Your task to perform on an android device: Go to battery settings Image 0: 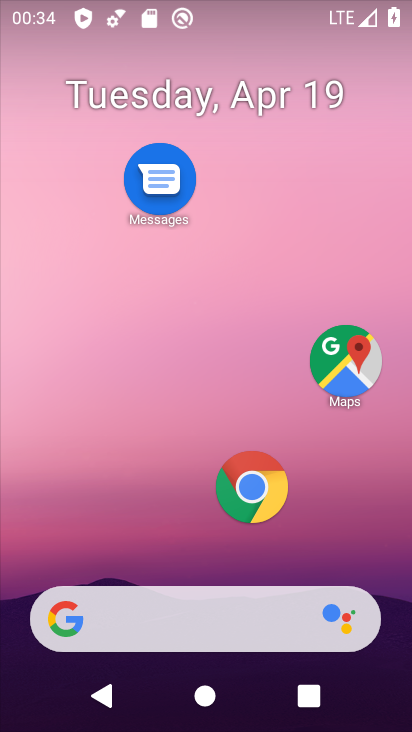
Step 0: drag from (160, 567) to (284, 0)
Your task to perform on an android device: Go to battery settings Image 1: 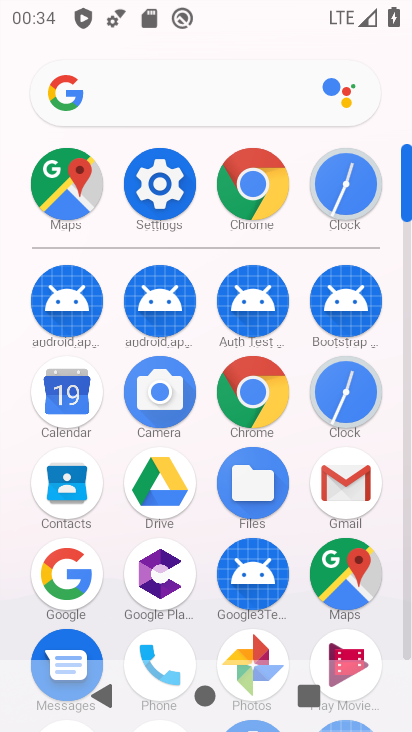
Step 1: click (161, 188)
Your task to perform on an android device: Go to battery settings Image 2: 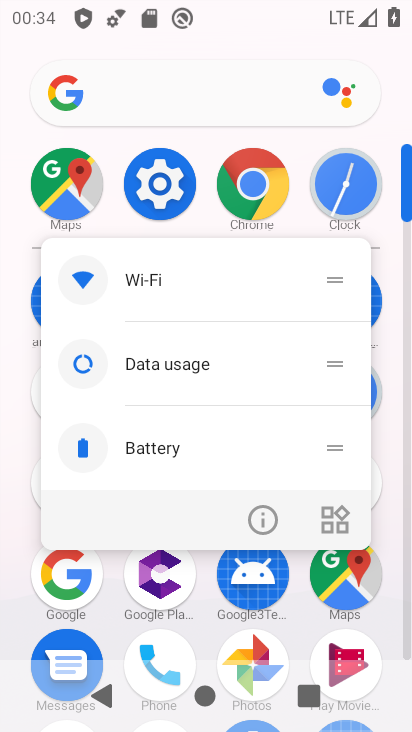
Step 2: click (157, 193)
Your task to perform on an android device: Go to battery settings Image 3: 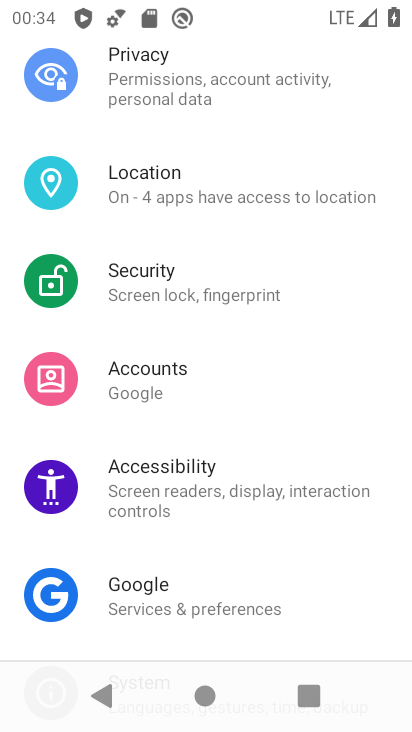
Step 3: drag from (239, 126) to (252, 579)
Your task to perform on an android device: Go to battery settings Image 4: 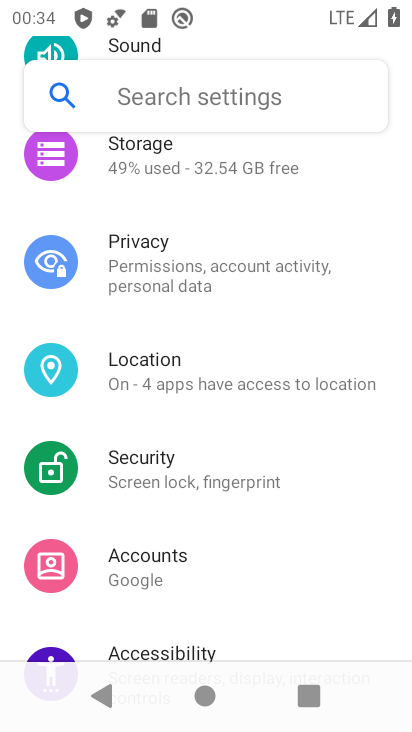
Step 4: drag from (202, 208) to (197, 707)
Your task to perform on an android device: Go to battery settings Image 5: 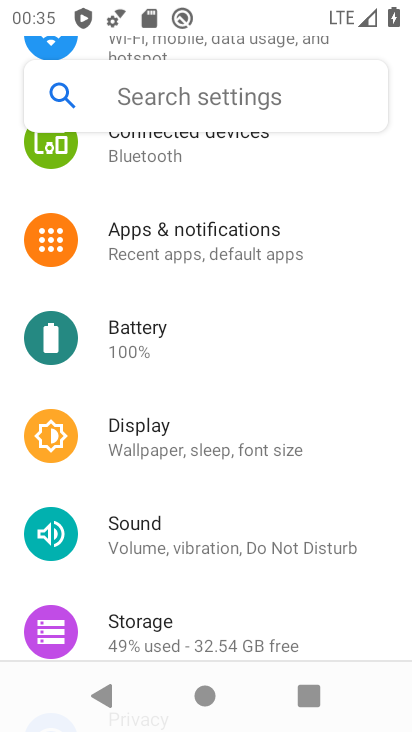
Step 5: click (153, 323)
Your task to perform on an android device: Go to battery settings Image 6: 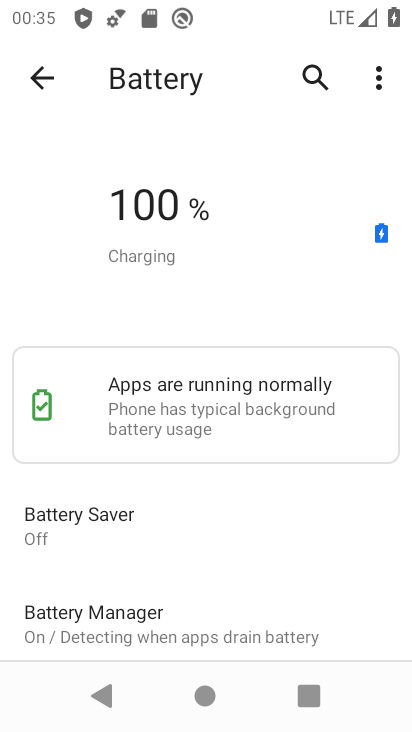
Step 6: task complete